Your task to perform on an android device: turn off location history Image 0: 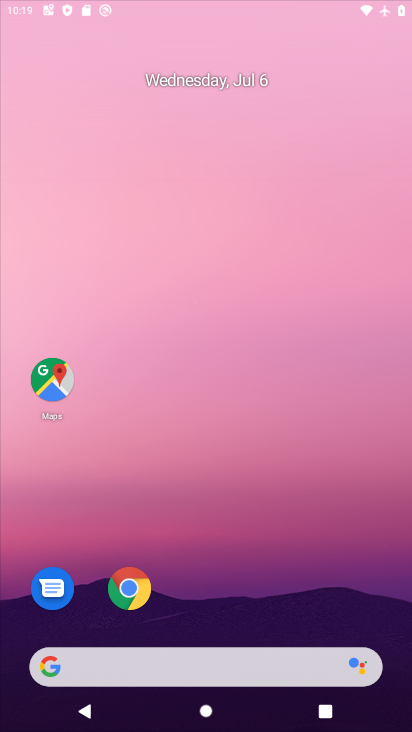
Step 0: drag from (208, 509) to (201, 266)
Your task to perform on an android device: turn off location history Image 1: 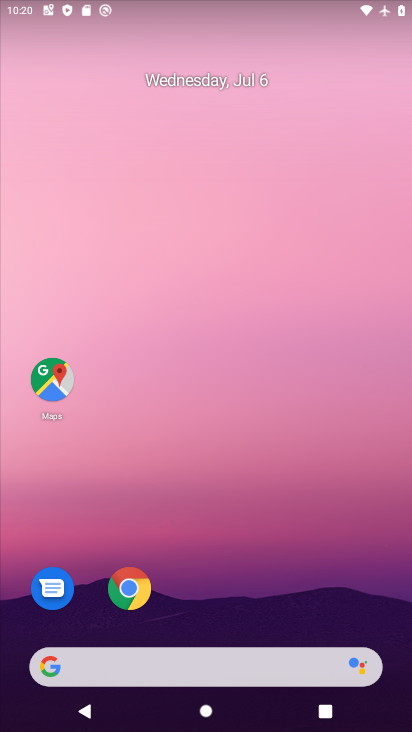
Step 1: drag from (219, 628) to (219, 253)
Your task to perform on an android device: turn off location history Image 2: 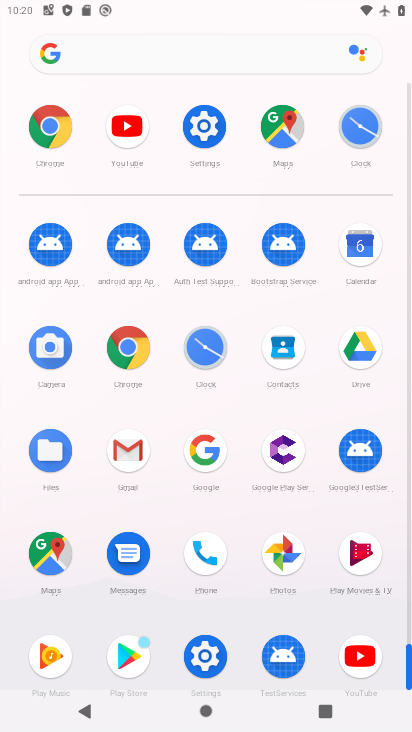
Step 2: click (200, 113)
Your task to perform on an android device: turn off location history Image 3: 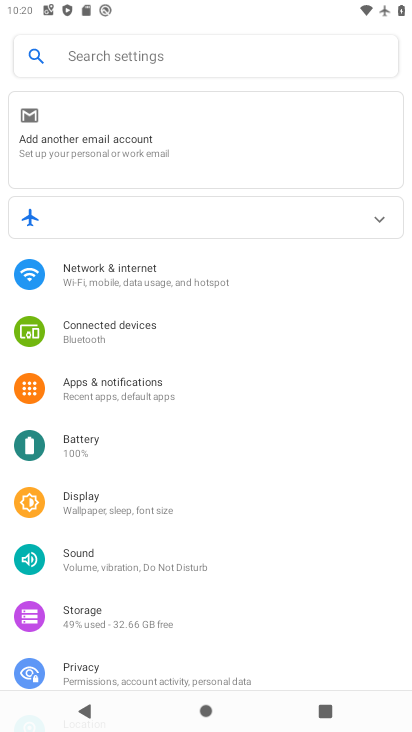
Step 3: drag from (158, 594) to (173, 319)
Your task to perform on an android device: turn off location history Image 4: 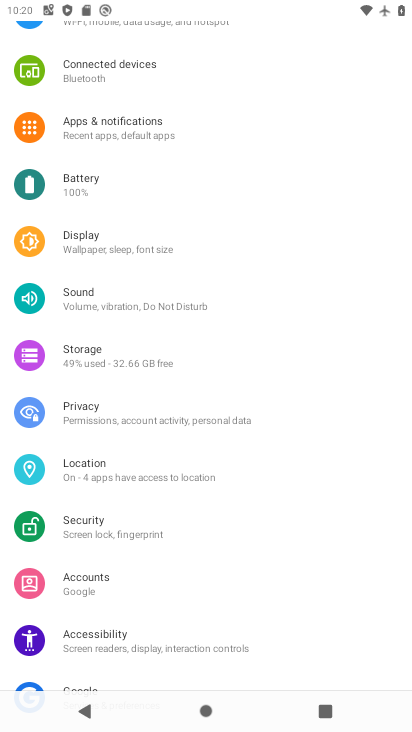
Step 4: click (95, 464)
Your task to perform on an android device: turn off location history Image 5: 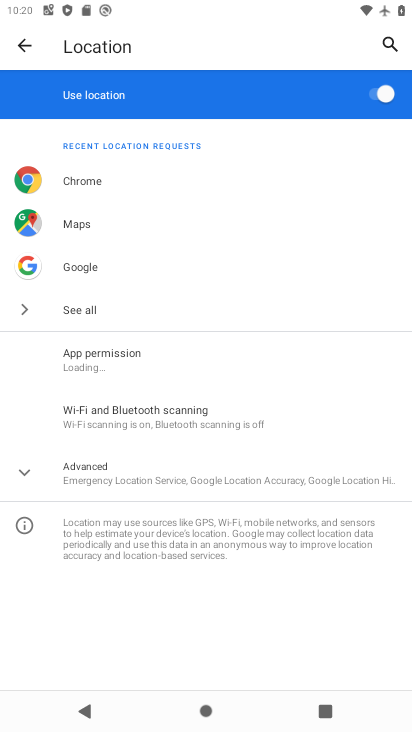
Step 5: click (396, 95)
Your task to perform on an android device: turn off location history Image 6: 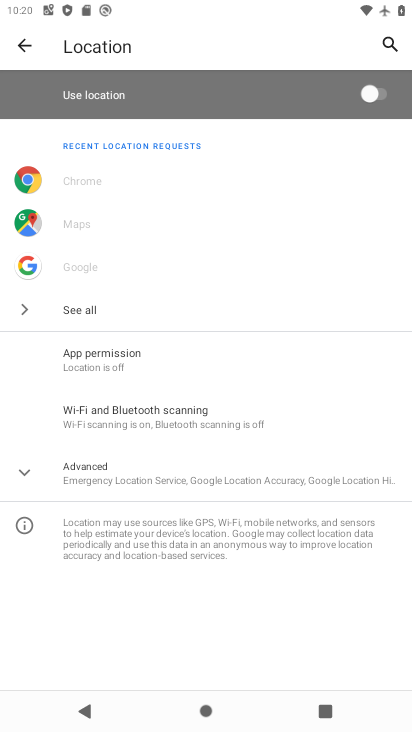
Step 6: task complete